Your task to perform on an android device: Search for seafood restaurants on Google Maps Image 0: 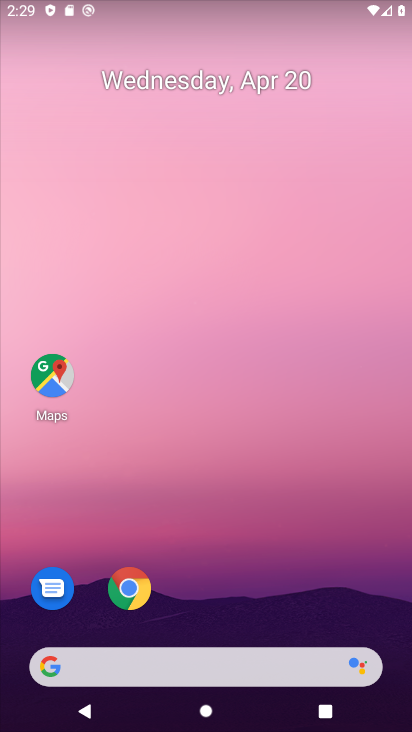
Step 0: drag from (314, 605) to (334, 63)
Your task to perform on an android device: Search for seafood restaurants on Google Maps Image 1: 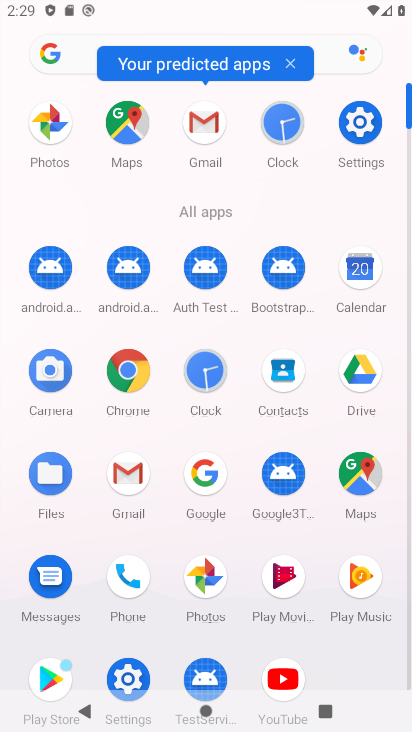
Step 1: click (363, 487)
Your task to perform on an android device: Search for seafood restaurants on Google Maps Image 2: 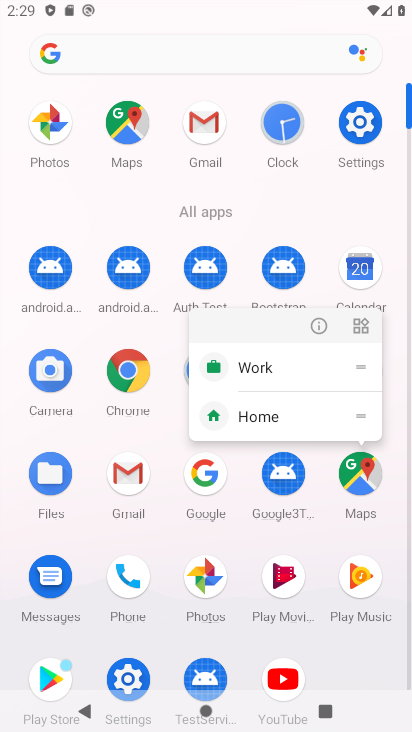
Step 2: click (352, 482)
Your task to perform on an android device: Search for seafood restaurants on Google Maps Image 3: 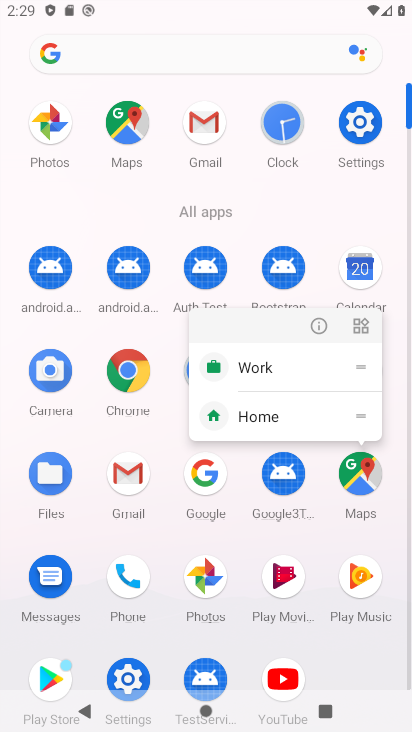
Step 3: click (348, 483)
Your task to perform on an android device: Search for seafood restaurants on Google Maps Image 4: 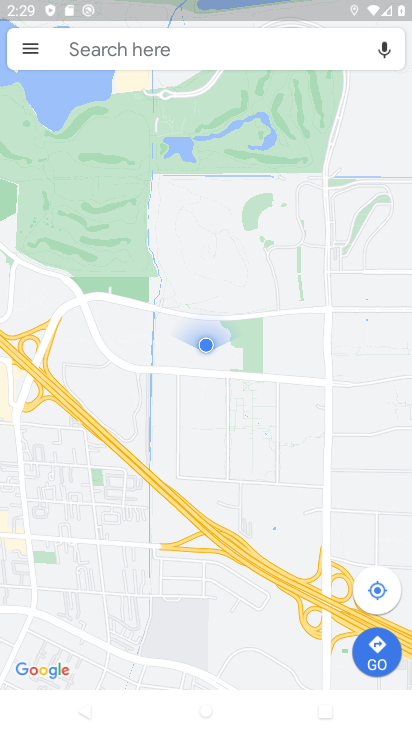
Step 4: click (190, 52)
Your task to perform on an android device: Search for seafood restaurants on Google Maps Image 5: 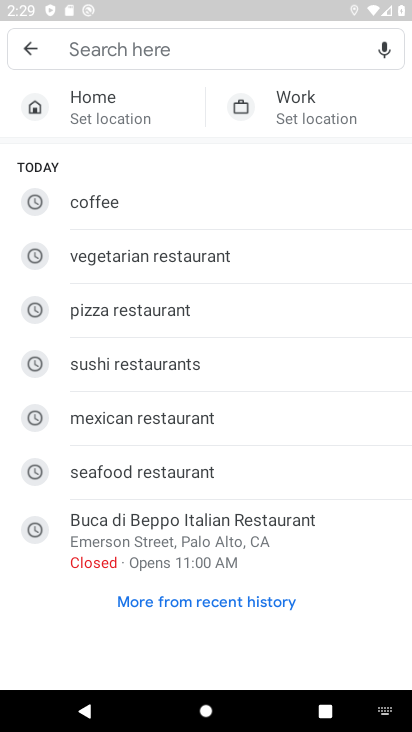
Step 5: type "seafood restaurants"
Your task to perform on an android device: Search for seafood restaurants on Google Maps Image 6: 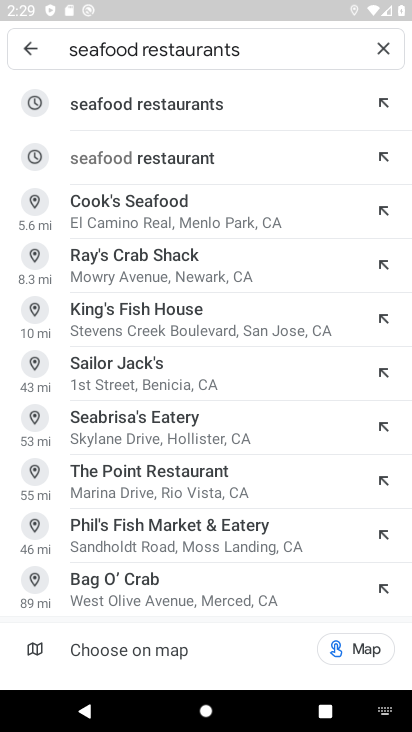
Step 6: click (226, 110)
Your task to perform on an android device: Search for seafood restaurants on Google Maps Image 7: 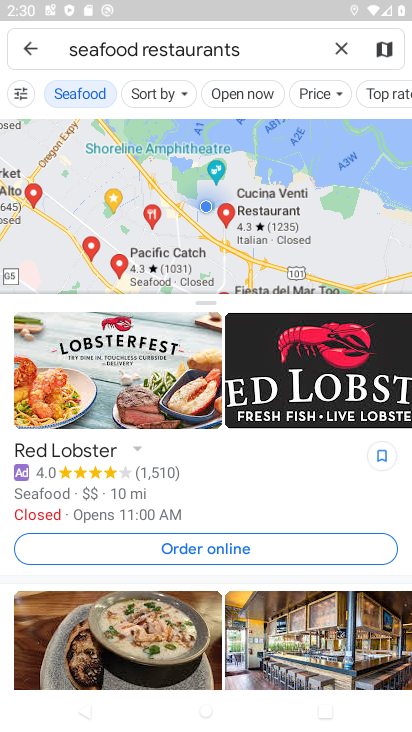
Step 7: task complete